Your task to perform on an android device: Open the map Image 0: 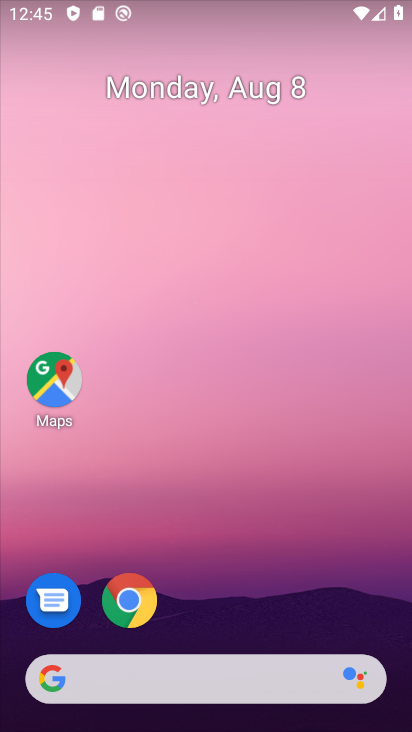
Step 0: press home button
Your task to perform on an android device: Open the map Image 1: 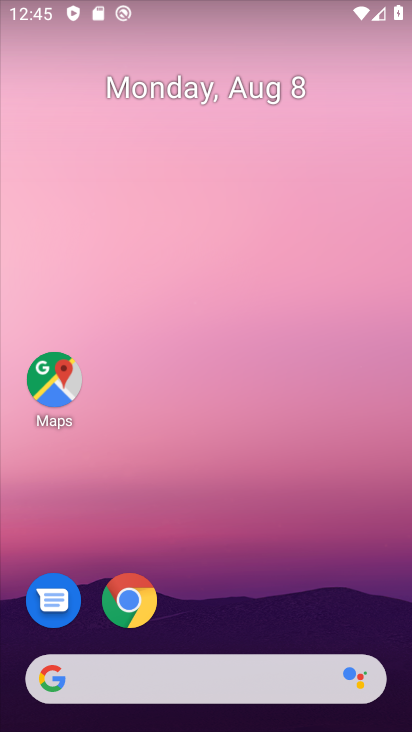
Step 1: click (54, 389)
Your task to perform on an android device: Open the map Image 2: 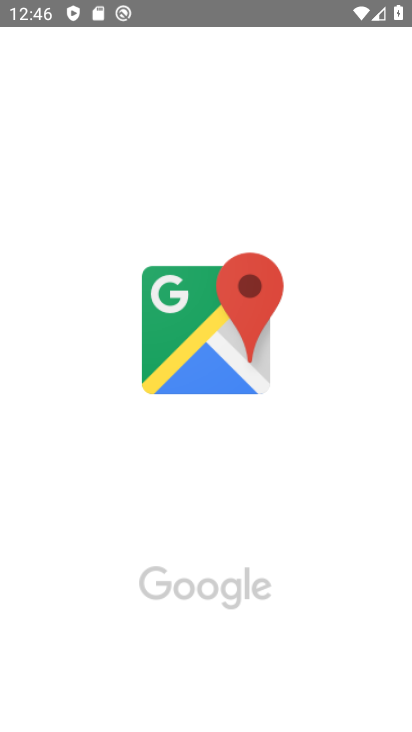
Step 2: task complete